Your task to perform on an android device: toggle pop-ups in chrome Image 0: 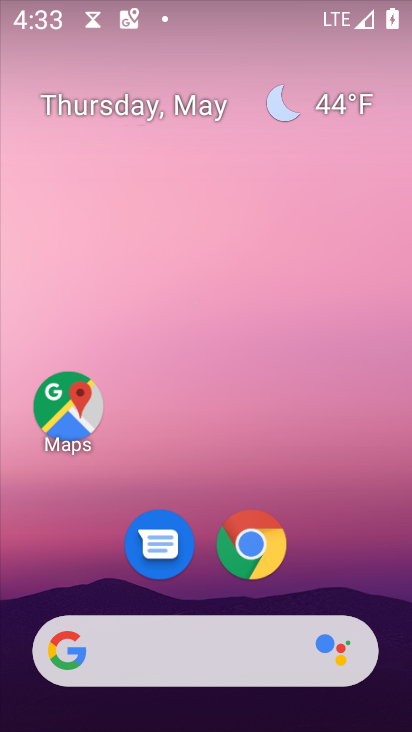
Step 0: click (244, 557)
Your task to perform on an android device: toggle pop-ups in chrome Image 1: 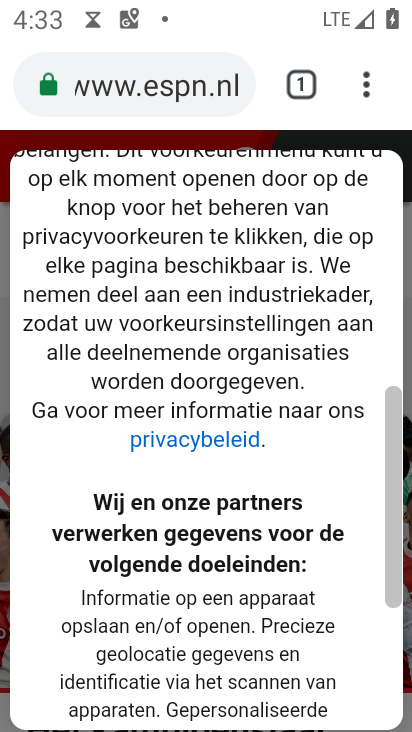
Step 1: click (365, 88)
Your task to perform on an android device: toggle pop-ups in chrome Image 2: 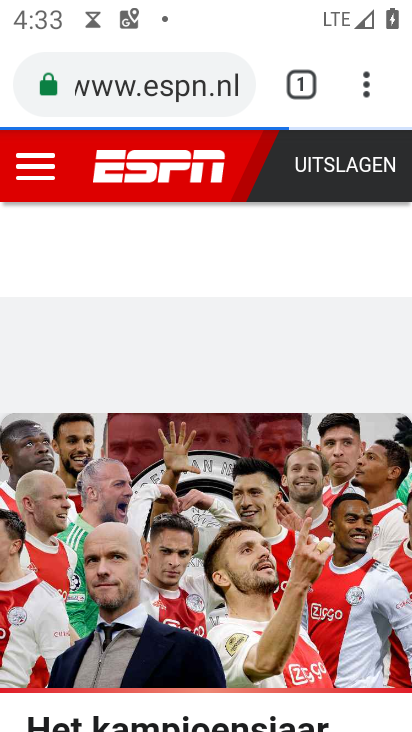
Step 2: click (354, 88)
Your task to perform on an android device: toggle pop-ups in chrome Image 3: 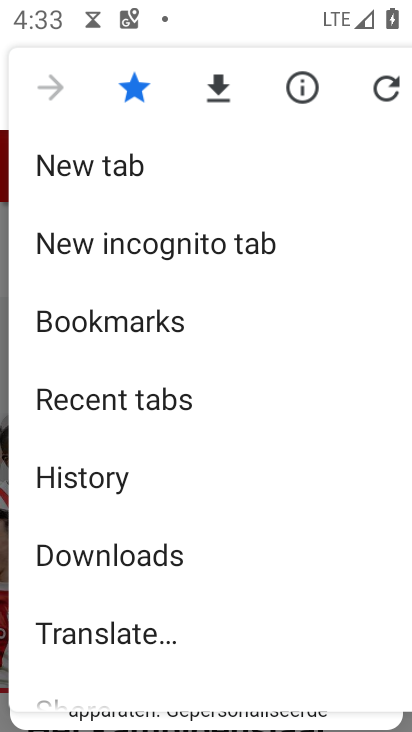
Step 3: drag from (207, 609) to (172, 358)
Your task to perform on an android device: toggle pop-ups in chrome Image 4: 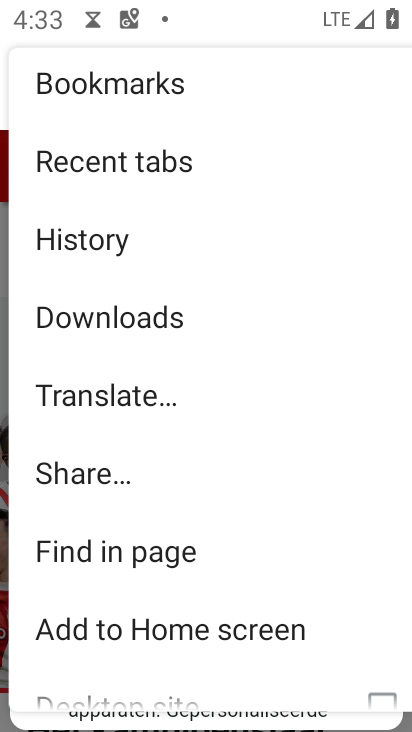
Step 4: drag from (230, 594) to (233, 355)
Your task to perform on an android device: toggle pop-ups in chrome Image 5: 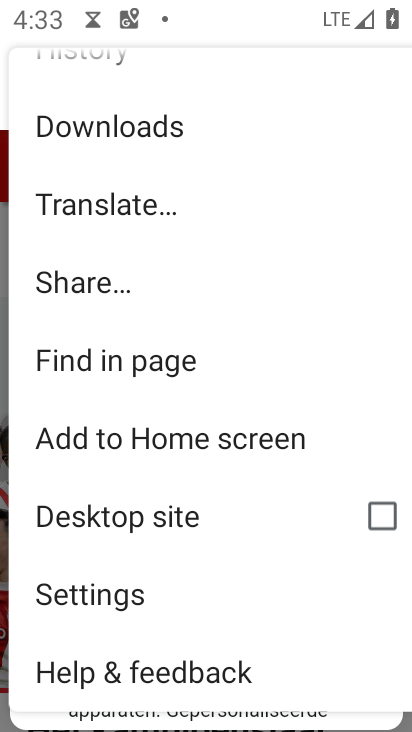
Step 5: click (176, 602)
Your task to perform on an android device: toggle pop-ups in chrome Image 6: 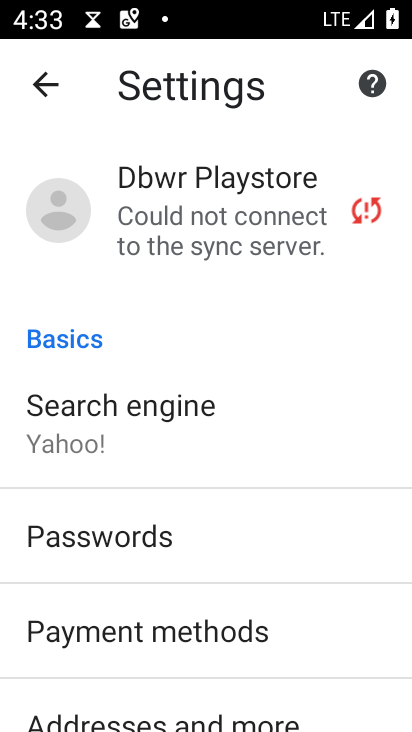
Step 6: drag from (161, 534) to (179, 345)
Your task to perform on an android device: toggle pop-ups in chrome Image 7: 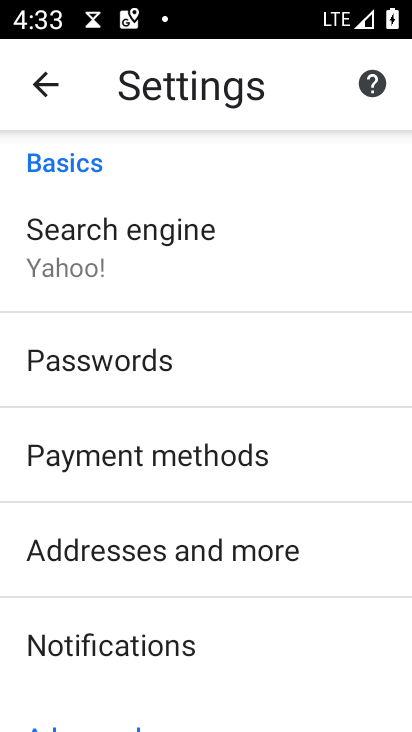
Step 7: drag from (157, 605) to (119, 374)
Your task to perform on an android device: toggle pop-ups in chrome Image 8: 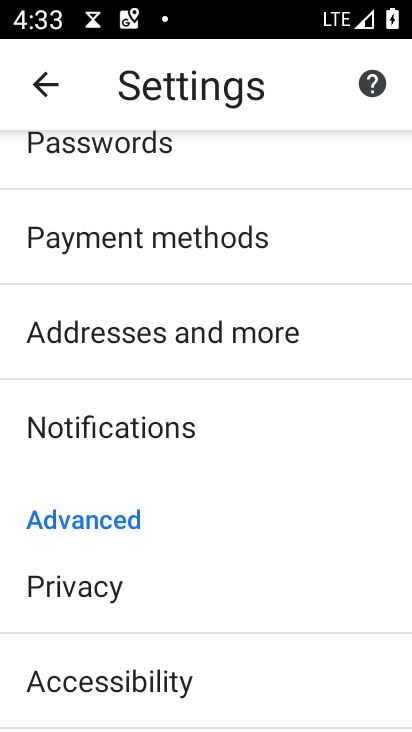
Step 8: drag from (128, 519) to (162, 325)
Your task to perform on an android device: toggle pop-ups in chrome Image 9: 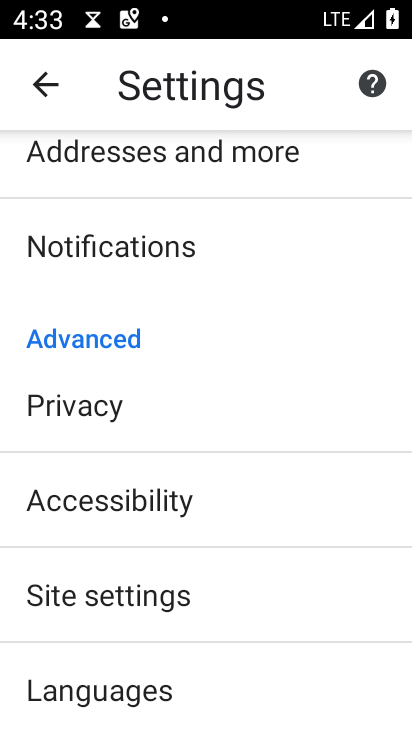
Step 9: click (170, 597)
Your task to perform on an android device: toggle pop-ups in chrome Image 10: 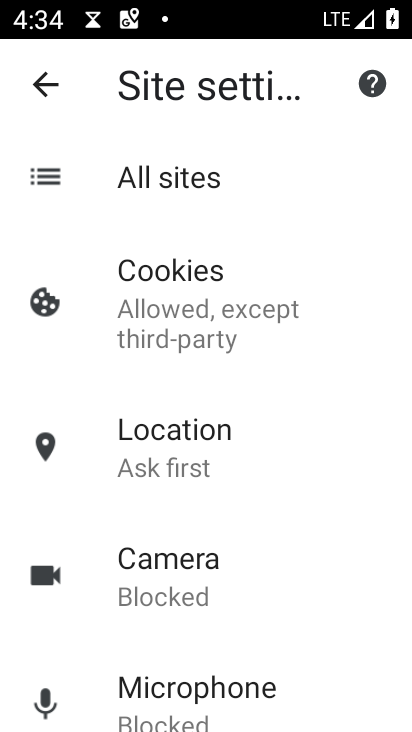
Step 10: drag from (187, 623) to (215, 417)
Your task to perform on an android device: toggle pop-ups in chrome Image 11: 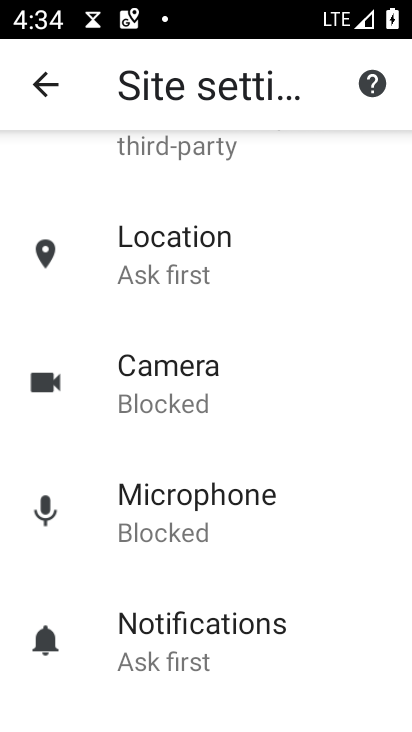
Step 11: drag from (150, 652) to (143, 526)
Your task to perform on an android device: toggle pop-ups in chrome Image 12: 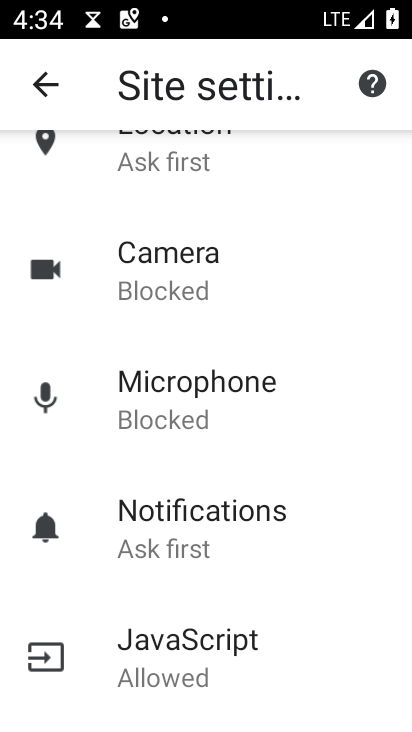
Step 12: drag from (198, 662) to (228, 516)
Your task to perform on an android device: toggle pop-ups in chrome Image 13: 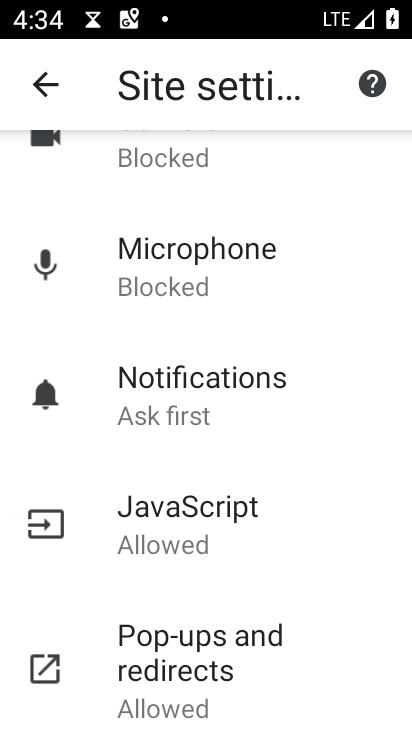
Step 13: click (220, 648)
Your task to perform on an android device: toggle pop-ups in chrome Image 14: 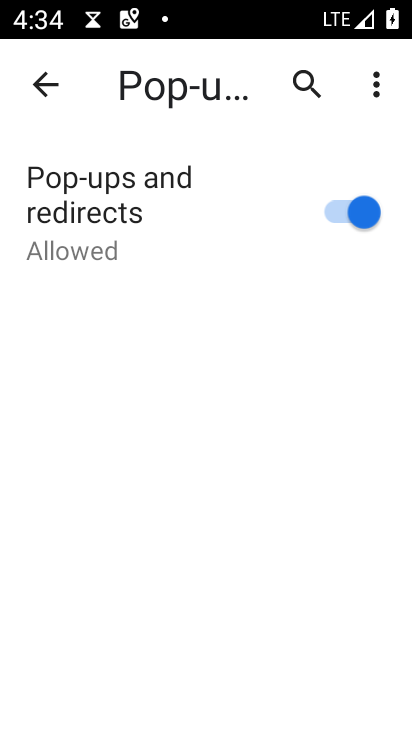
Step 14: click (367, 197)
Your task to perform on an android device: toggle pop-ups in chrome Image 15: 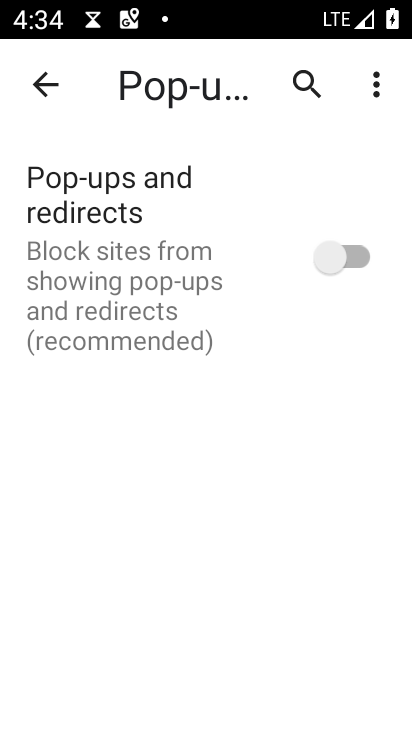
Step 15: task complete